Your task to perform on an android device: toggle sleep mode Image 0: 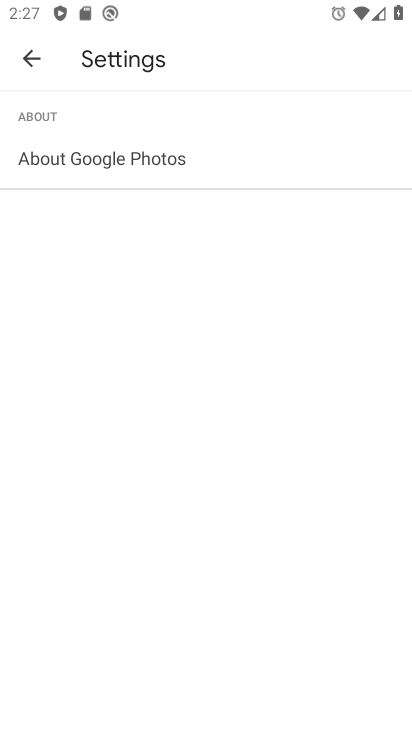
Step 0: press home button
Your task to perform on an android device: toggle sleep mode Image 1: 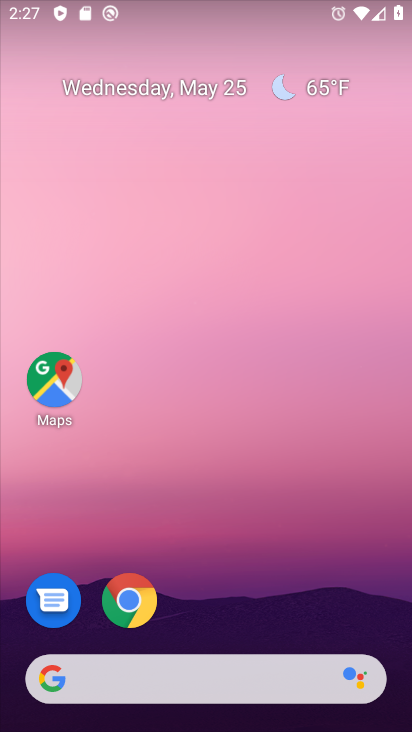
Step 1: drag from (295, 482) to (312, 67)
Your task to perform on an android device: toggle sleep mode Image 2: 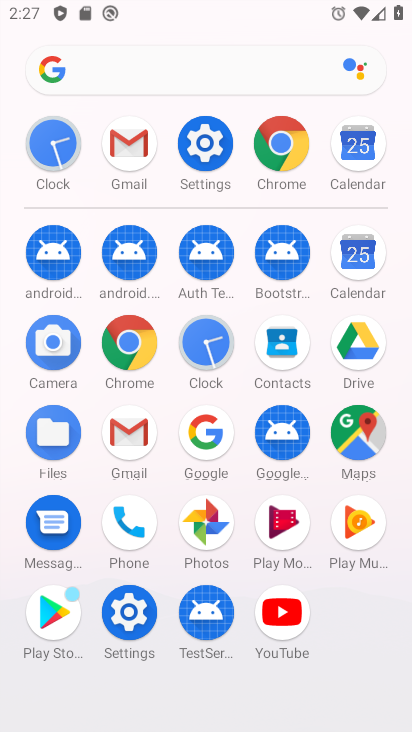
Step 2: click (217, 145)
Your task to perform on an android device: toggle sleep mode Image 3: 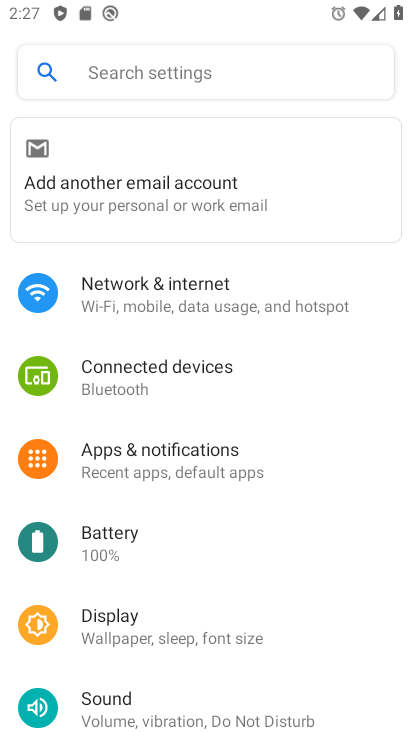
Step 3: drag from (254, 533) to (305, 210)
Your task to perform on an android device: toggle sleep mode Image 4: 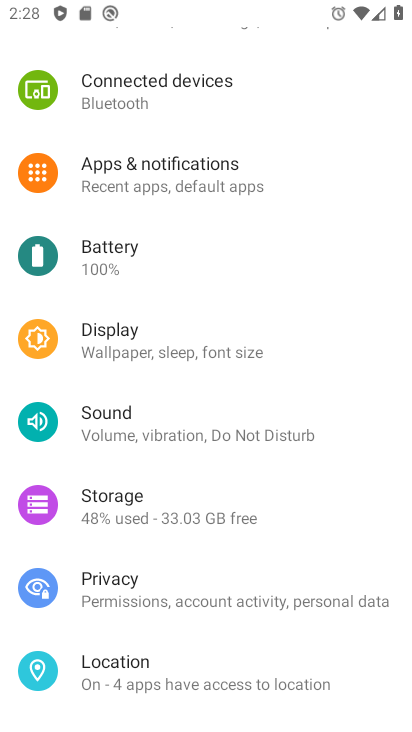
Step 4: drag from (154, 405) to (153, 347)
Your task to perform on an android device: toggle sleep mode Image 5: 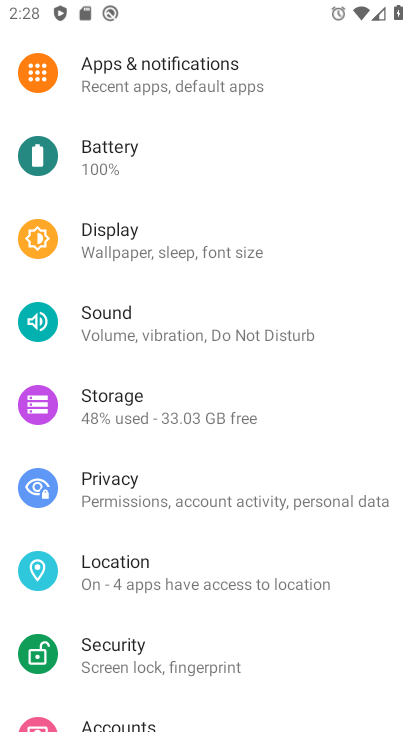
Step 5: click (169, 266)
Your task to perform on an android device: toggle sleep mode Image 6: 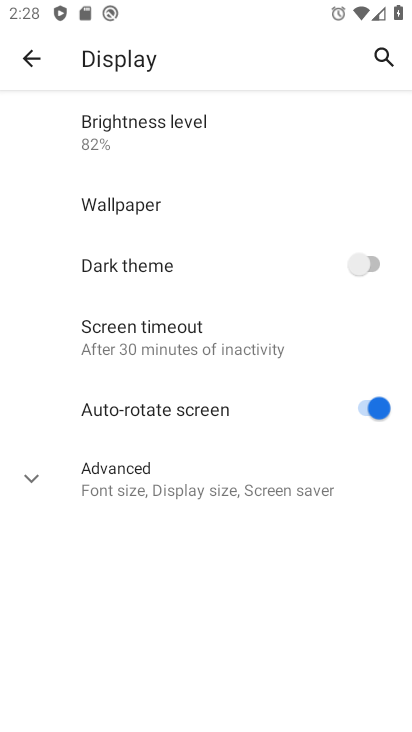
Step 6: click (149, 337)
Your task to perform on an android device: toggle sleep mode Image 7: 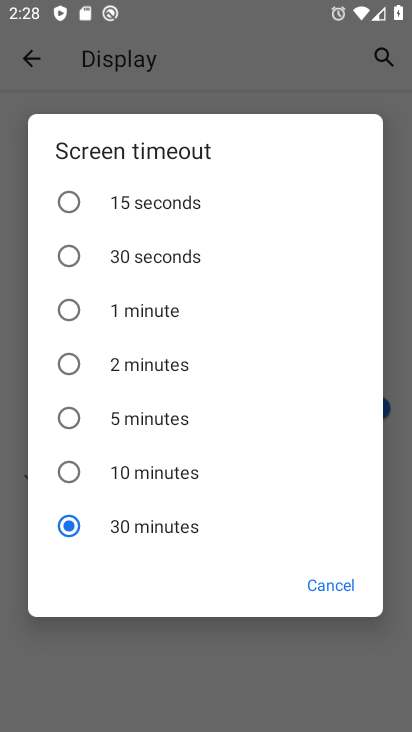
Step 7: click (131, 460)
Your task to perform on an android device: toggle sleep mode Image 8: 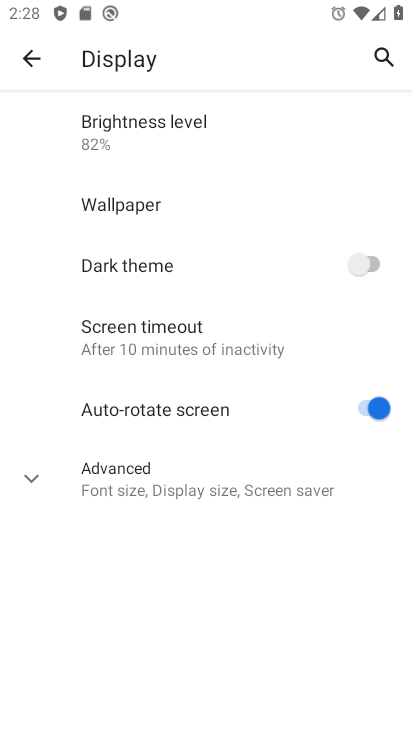
Step 8: task complete